Your task to perform on an android device: open wifi settings Image 0: 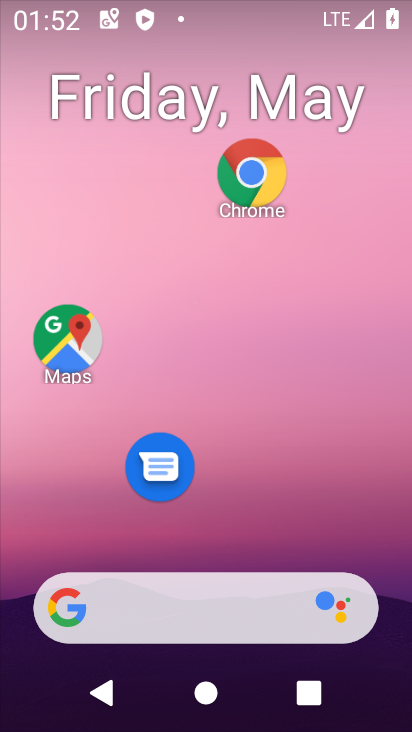
Step 0: drag from (268, 647) to (411, 213)
Your task to perform on an android device: open wifi settings Image 1: 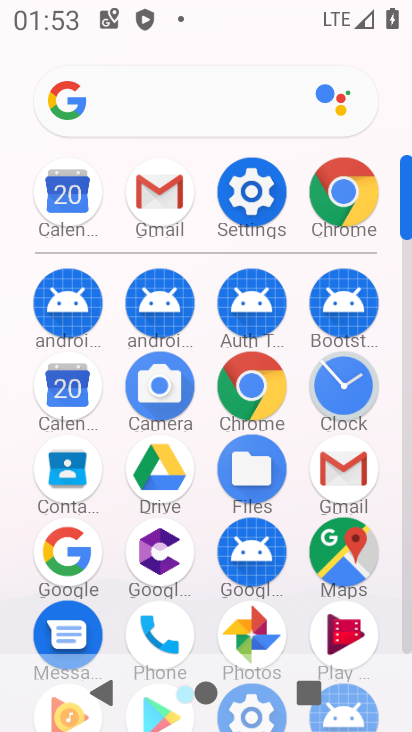
Step 1: click (238, 191)
Your task to perform on an android device: open wifi settings Image 2: 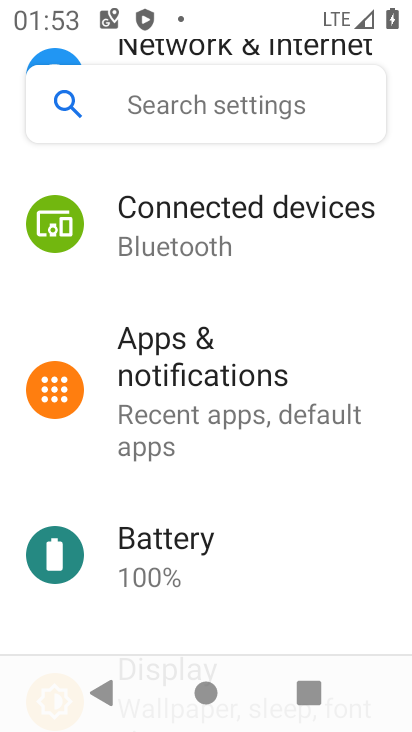
Step 2: click (185, 117)
Your task to perform on an android device: open wifi settings Image 3: 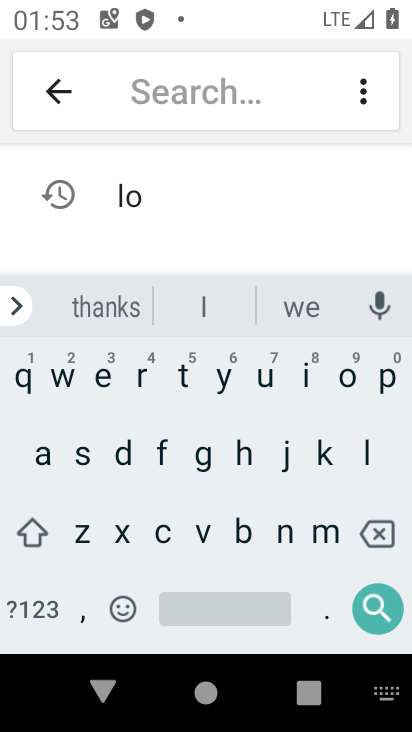
Step 3: click (50, 93)
Your task to perform on an android device: open wifi settings Image 4: 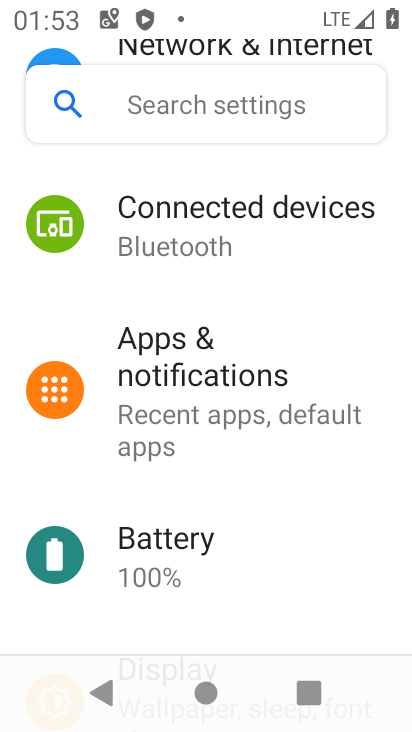
Step 4: drag from (203, 243) to (207, 485)
Your task to perform on an android device: open wifi settings Image 5: 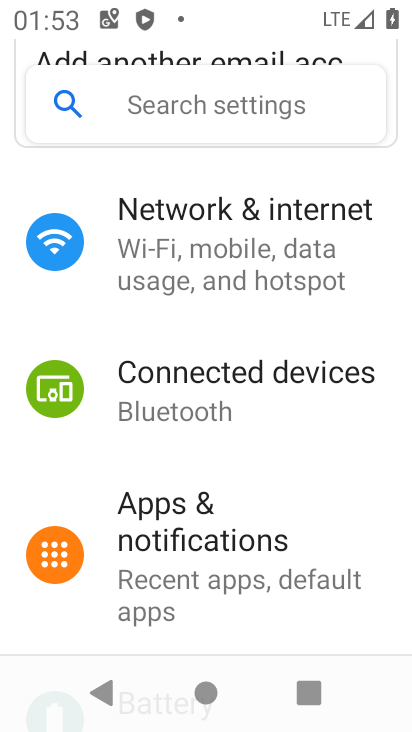
Step 5: click (196, 273)
Your task to perform on an android device: open wifi settings Image 6: 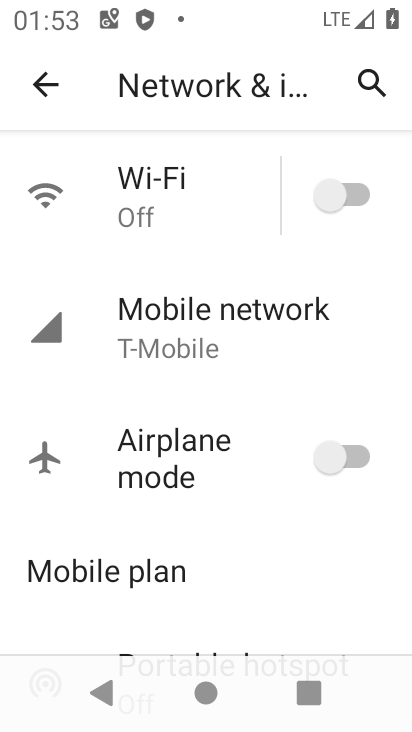
Step 6: click (173, 178)
Your task to perform on an android device: open wifi settings Image 7: 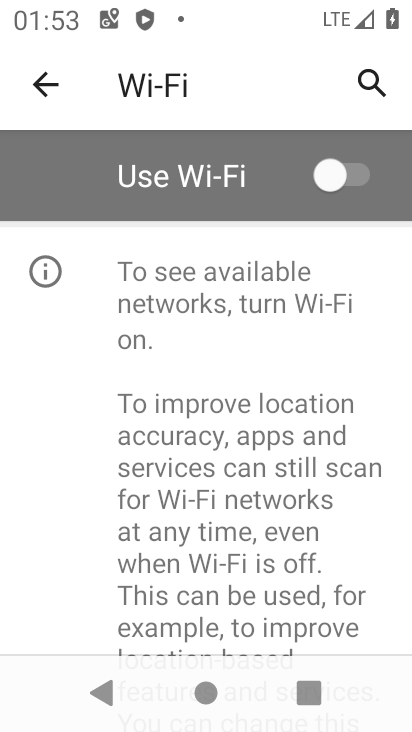
Step 7: task complete